Your task to perform on an android device: Search for sushi restaurants on Maps Image 0: 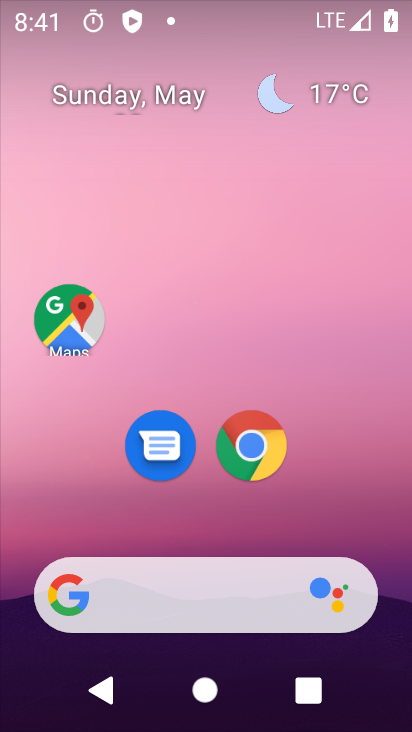
Step 0: click (405, 329)
Your task to perform on an android device: Search for sushi restaurants on Maps Image 1: 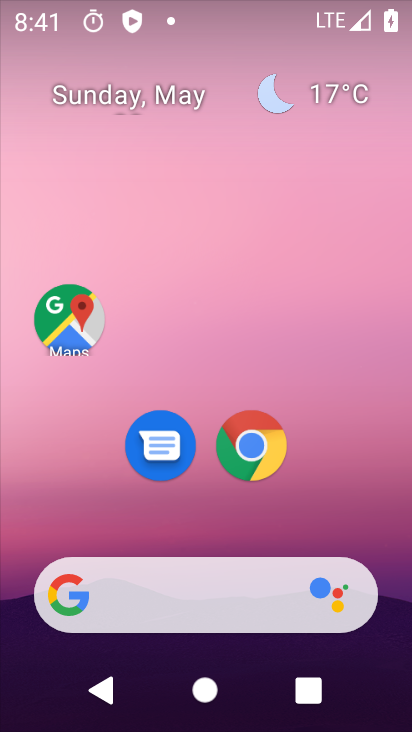
Step 1: drag from (195, 555) to (335, 88)
Your task to perform on an android device: Search for sushi restaurants on Maps Image 2: 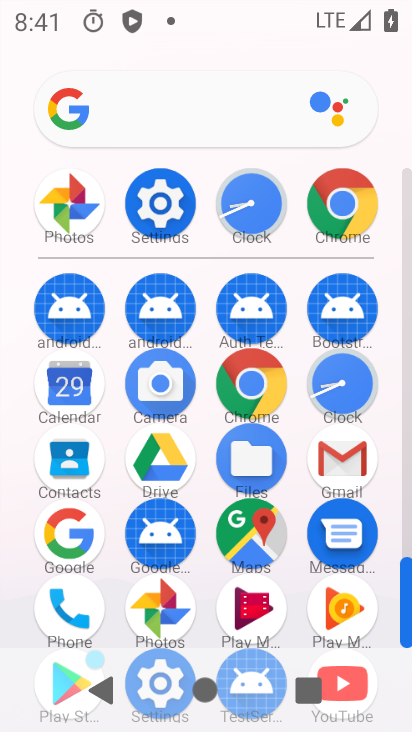
Step 2: click (256, 530)
Your task to perform on an android device: Search for sushi restaurants on Maps Image 3: 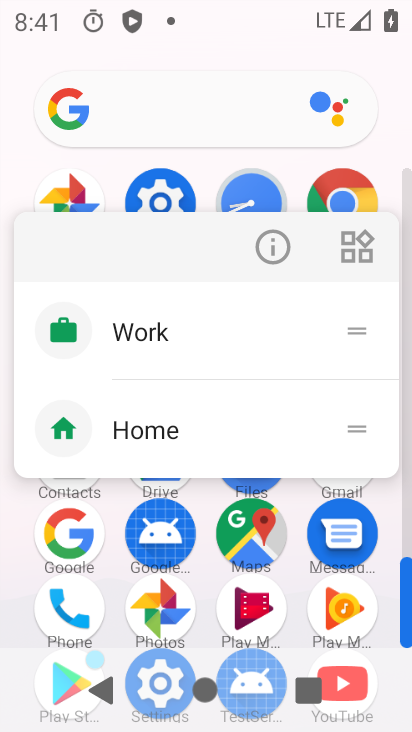
Step 3: click (274, 244)
Your task to perform on an android device: Search for sushi restaurants on Maps Image 4: 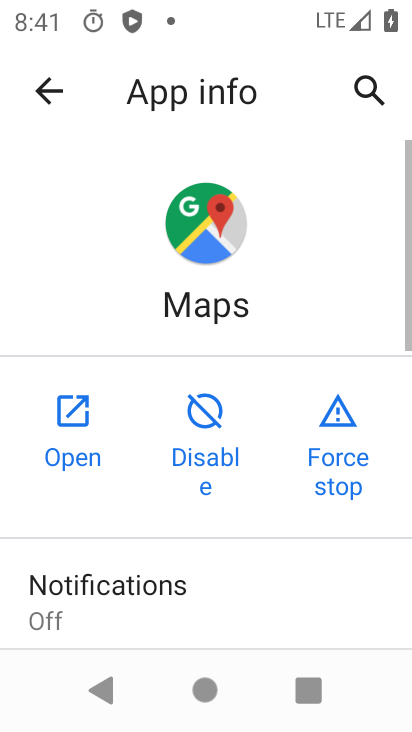
Step 4: click (77, 425)
Your task to perform on an android device: Search for sushi restaurants on Maps Image 5: 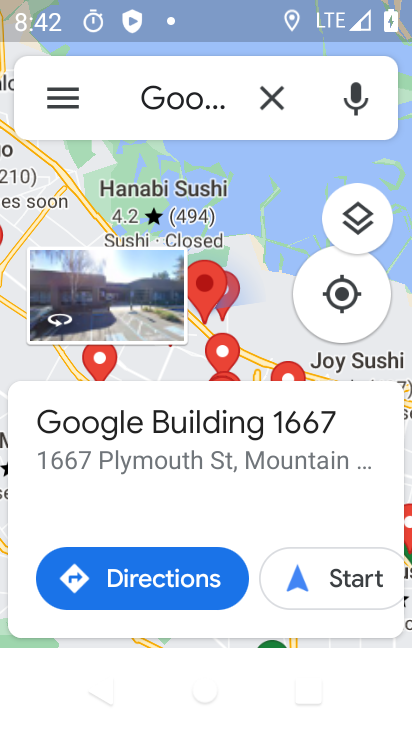
Step 5: drag from (269, 508) to (362, 203)
Your task to perform on an android device: Search for sushi restaurants on Maps Image 6: 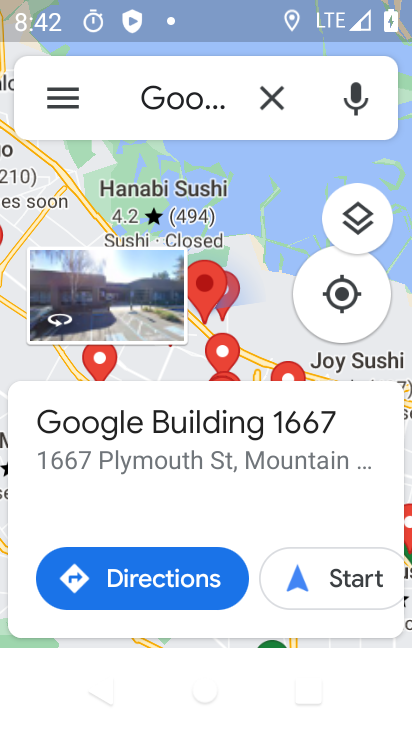
Step 6: click (263, 87)
Your task to perform on an android device: Search for sushi restaurants on Maps Image 7: 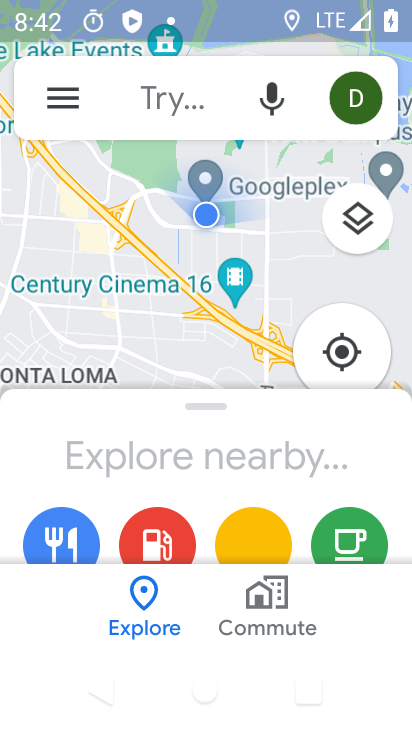
Step 7: click (185, 109)
Your task to perform on an android device: Search for sushi restaurants on Maps Image 8: 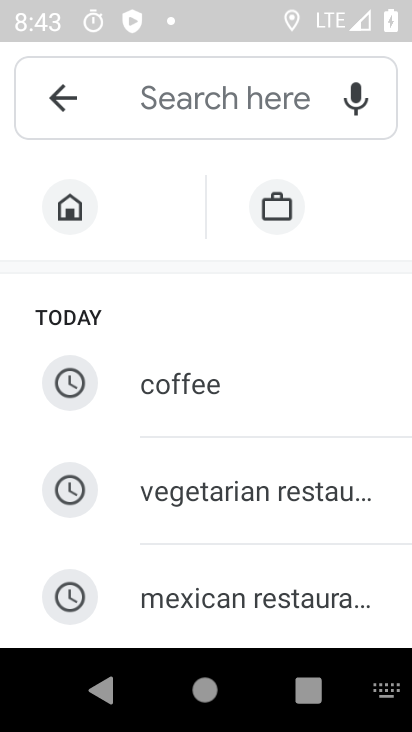
Step 8: drag from (217, 545) to (305, 126)
Your task to perform on an android device: Search for sushi restaurants on Maps Image 9: 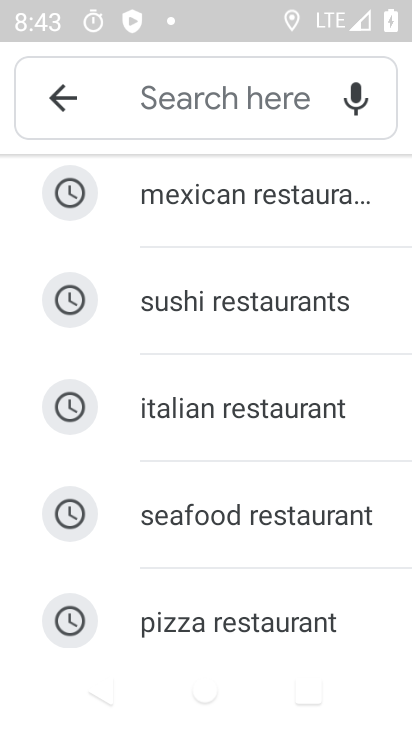
Step 9: drag from (221, 527) to (263, 492)
Your task to perform on an android device: Search for sushi restaurants on Maps Image 10: 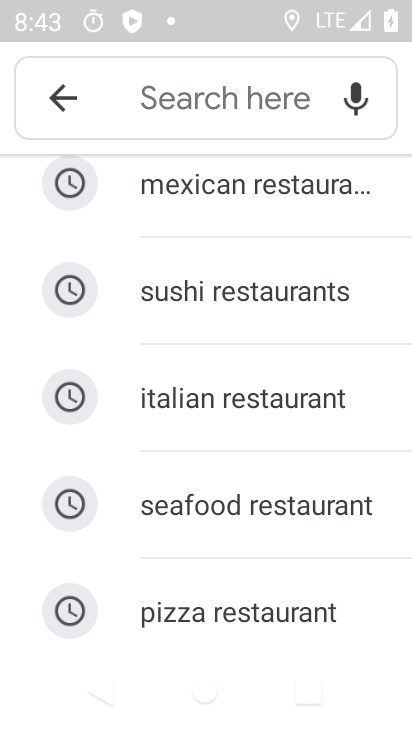
Step 10: click (198, 303)
Your task to perform on an android device: Search for sushi restaurants on Maps Image 11: 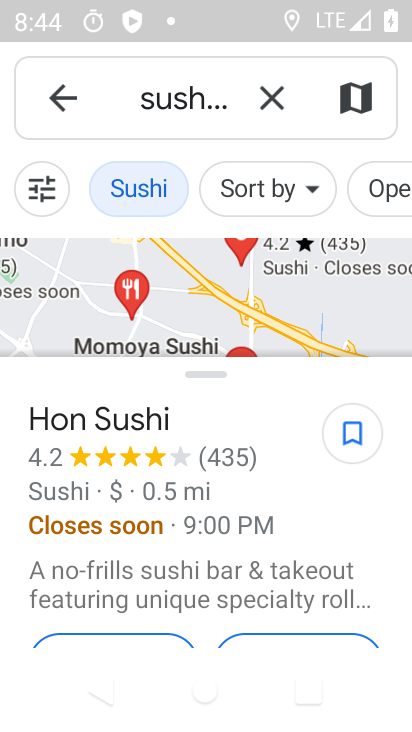
Step 11: task complete